Your task to perform on an android device: Is it going to rain tomorrow? Image 0: 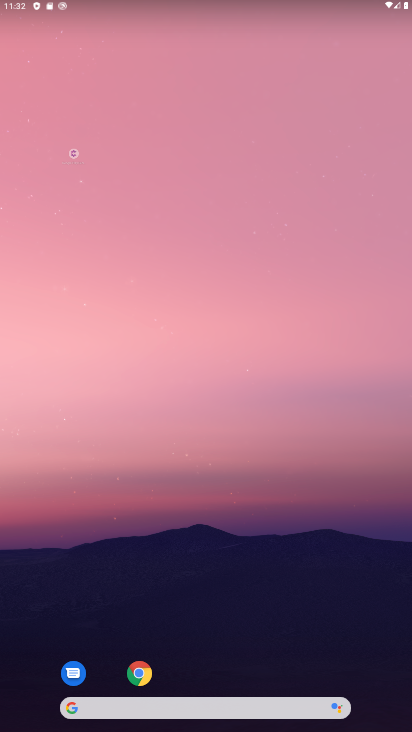
Step 0: click (274, 711)
Your task to perform on an android device: Is it going to rain tomorrow? Image 1: 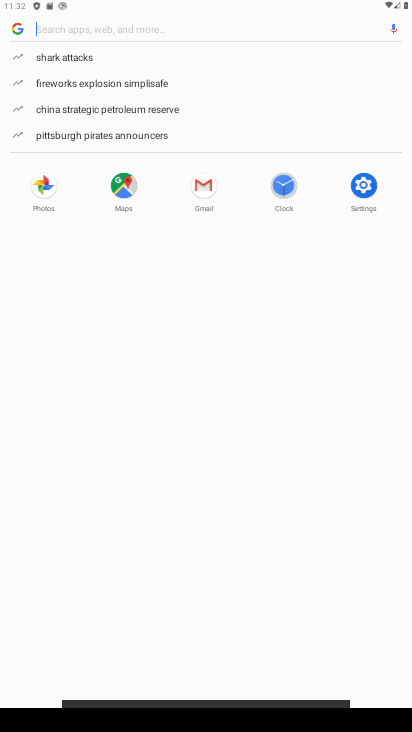
Step 1: type "Is it going to rain tomorrow?"
Your task to perform on an android device: Is it going to rain tomorrow? Image 2: 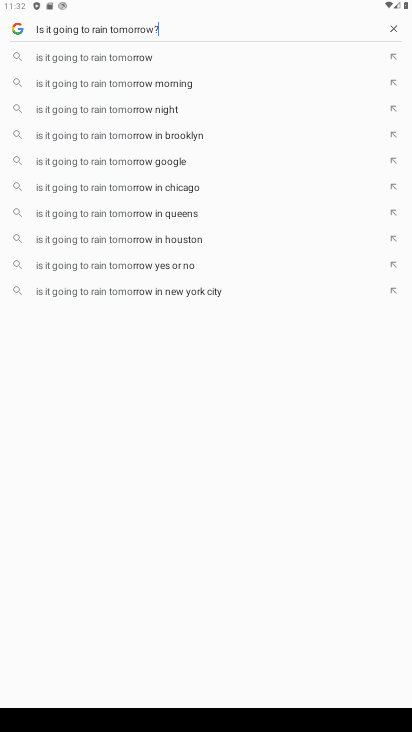
Step 2: press enter
Your task to perform on an android device: Is it going to rain tomorrow? Image 3: 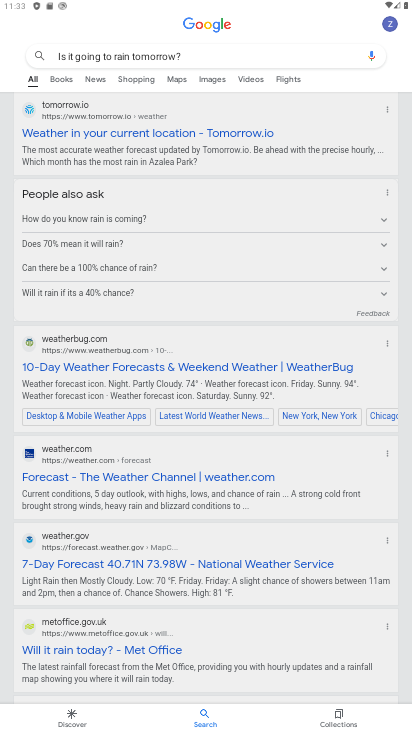
Step 3: task complete